Your task to perform on an android device: Do I have any events tomorrow? Image 0: 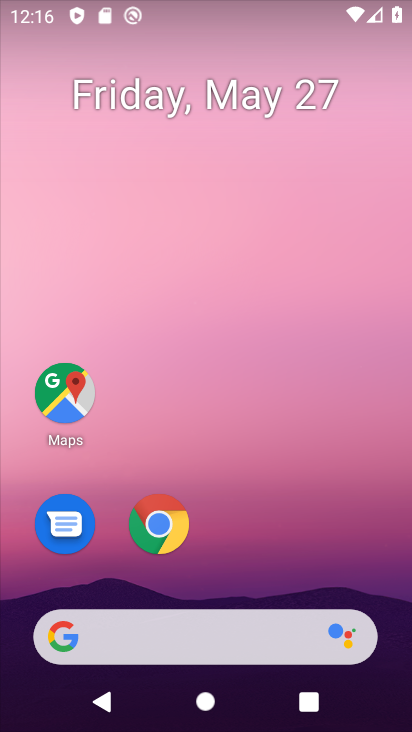
Step 0: drag from (256, 562) to (229, 43)
Your task to perform on an android device: Do I have any events tomorrow? Image 1: 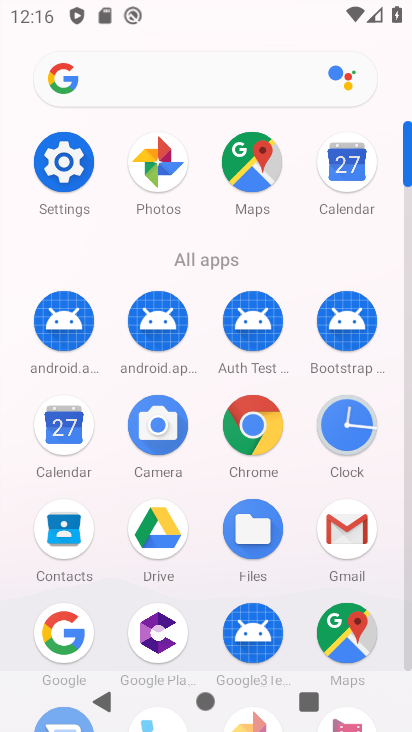
Step 1: click (353, 168)
Your task to perform on an android device: Do I have any events tomorrow? Image 2: 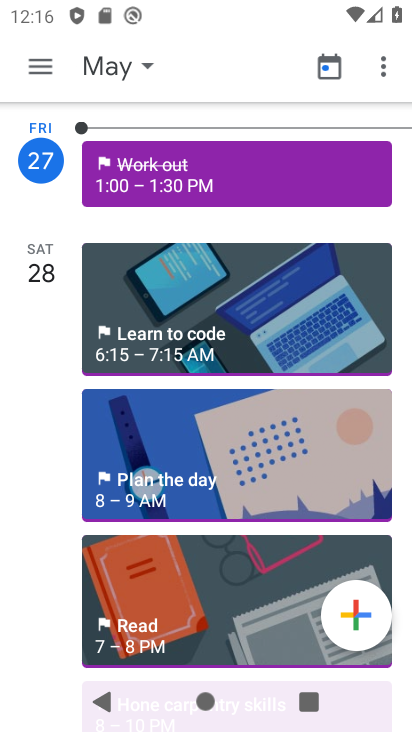
Step 2: task complete